Your task to perform on an android device: Search for the new nike shoes on Target Image 0: 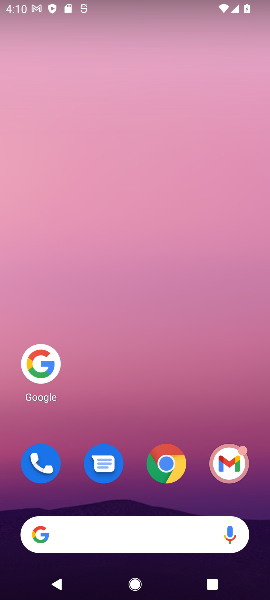
Step 0: click (36, 361)
Your task to perform on an android device: Search for the new nike shoes on Target Image 1: 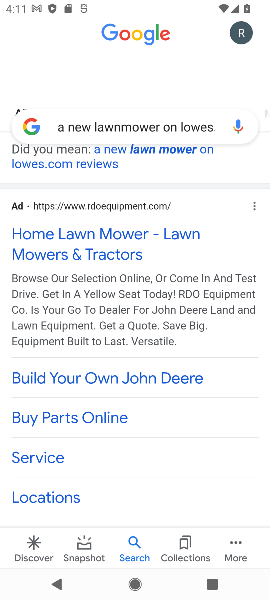
Step 1: click (187, 121)
Your task to perform on an android device: Search for the new nike shoes on Target Image 2: 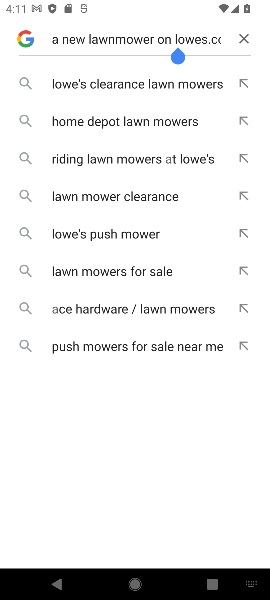
Step 2: click (248, 38)
Your task to perform on an android device: Search for the new nike shoes on Target Image 3: 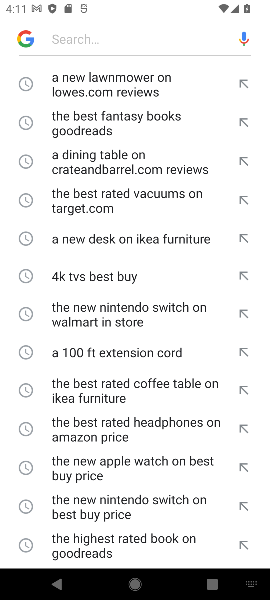
Step 3: click (137, 22)
Your task to perform on an android device: Search for the new nike shoes on Target Image 4: 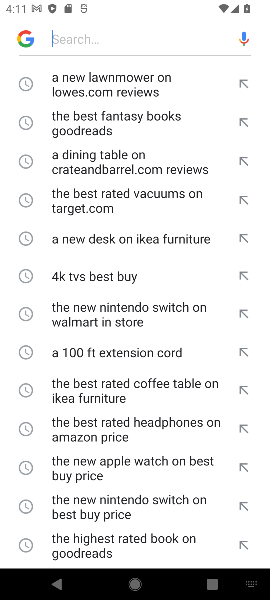
Step 4: type " the new nike shoes on Target "
Your task to perform on an android device: Search for the new nike shoes on Target Image 5: 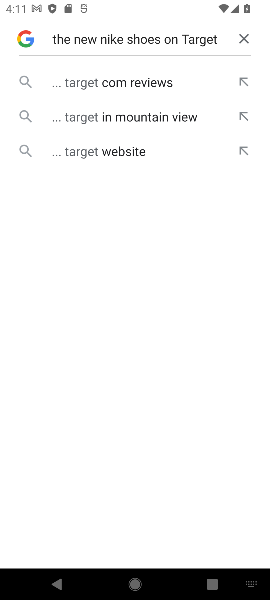
Step 5: click (126, 82)
Your task to perform on an android device: Search for the new nike shoes on Target Image 6: 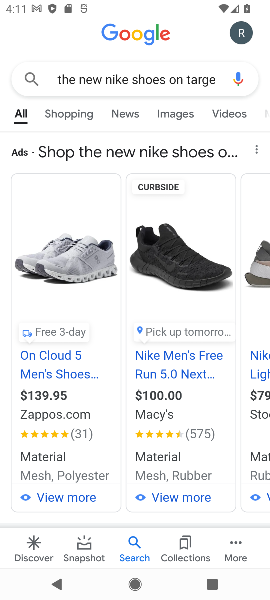
Step 6: task complete